Your task to perform on an android device: Open Google Chrome and open the bookmarks view Image 0: 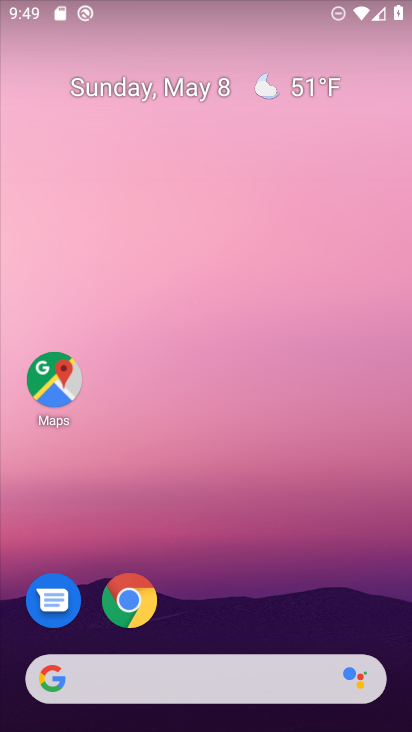
Step 0: click (129, 606)
Your task to perform on an android device: Open Google Chrome and open the bookmarks view Image 1: 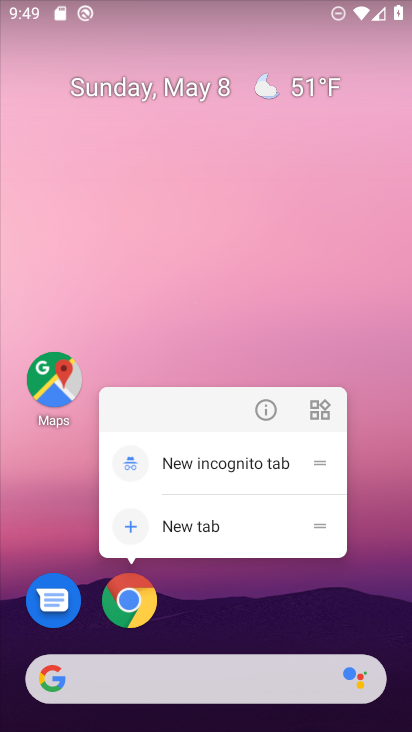
Step 1: click (129, 605)
Your task to perform on an android device: Open Google Chrome and open the bookmarks view Image 2: 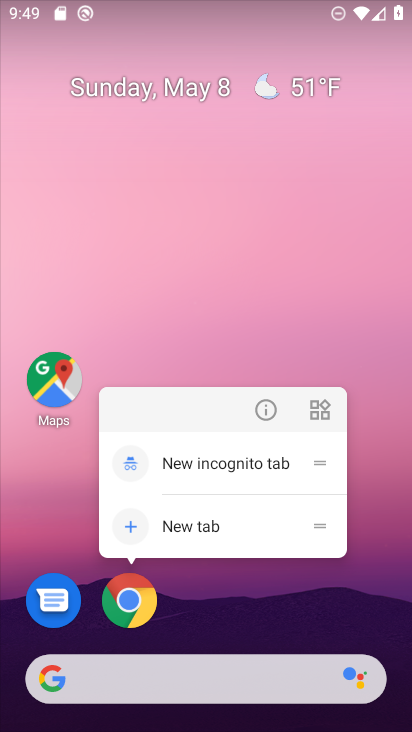
Step 2: click (129, 605)
Your task to perform on an android device: Open Google Chrome and open the bookmarks view Image 3: 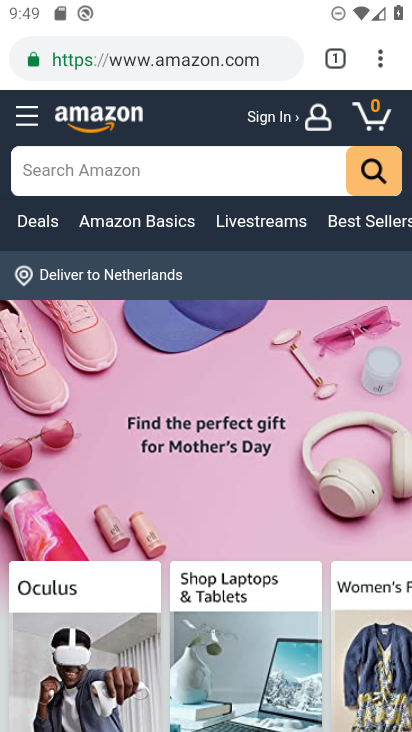
Step 3: drag from (385, 57) to (211, 143)
Your task to perform on an android device: Open Google Chrome and open the bookmarks view Image 4: 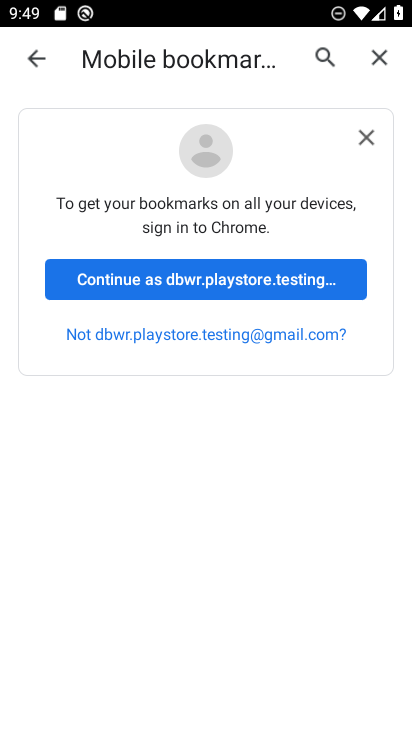
Step 4: click (195, 285)
Your task to perform on an android device: Open Google Chrome and open the bookmarks view Image 5: 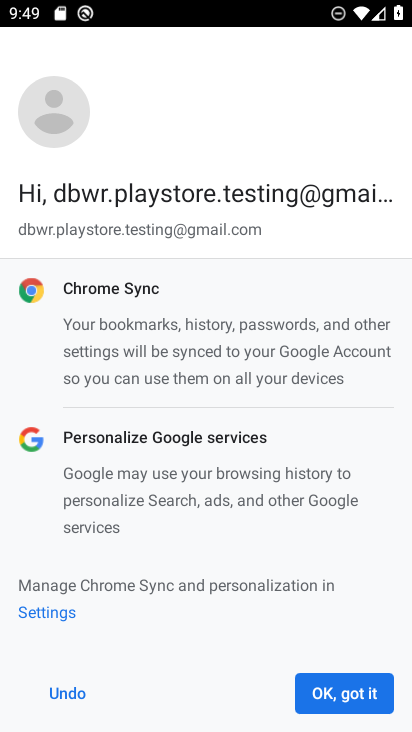
Step 5: click (318, 681)
Your task to perform on an android device: Open Google Chrome and open the bookmarks view Image 6: 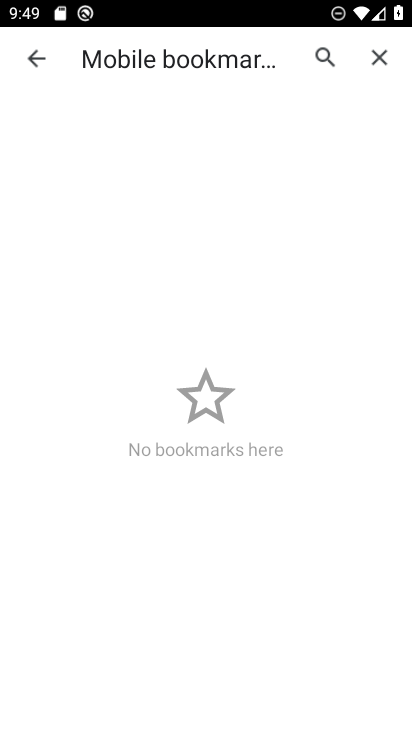
Step 6: task complete